Your task to perform on an android device: Go to privacy settings Image 0: 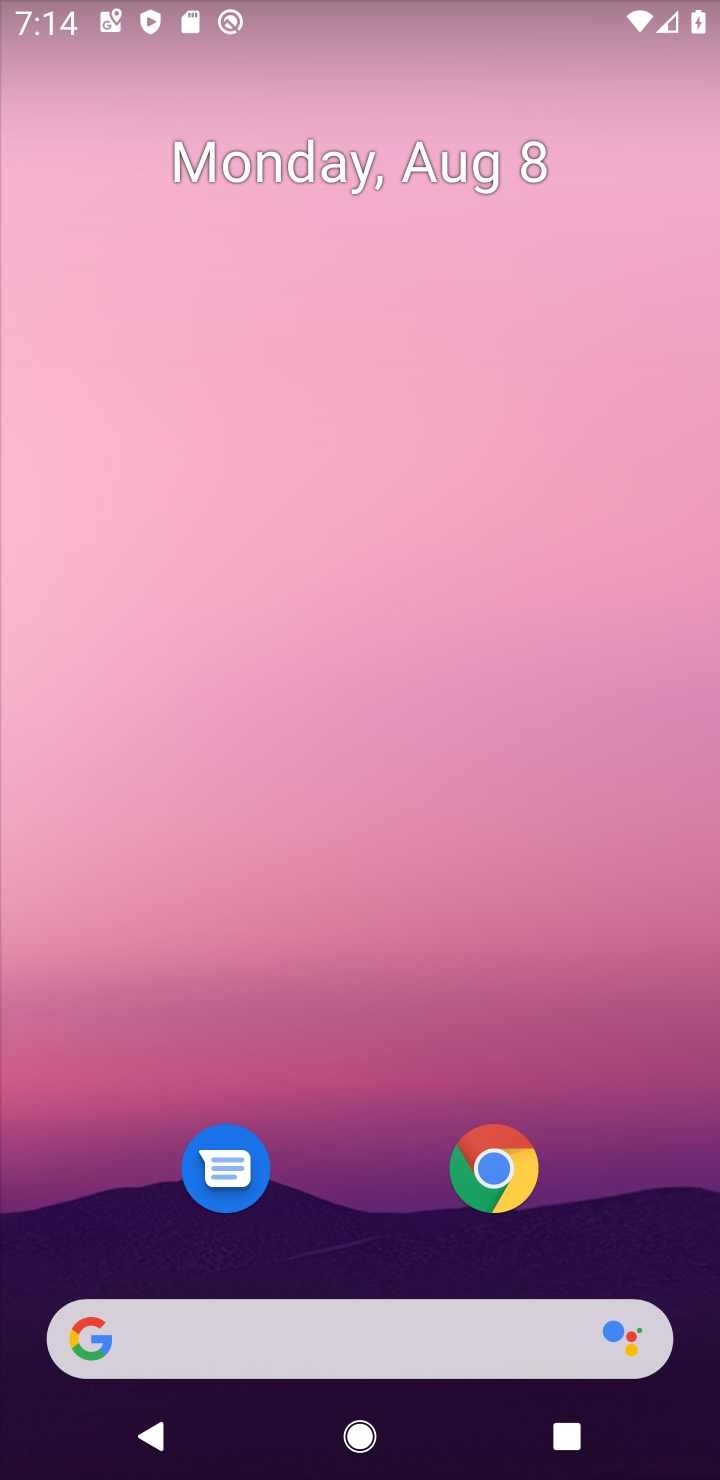
Step 0: drag from (654, 1213) to (517, 207)
Your task to perform on an android device: Go to privacy settings Image 1: 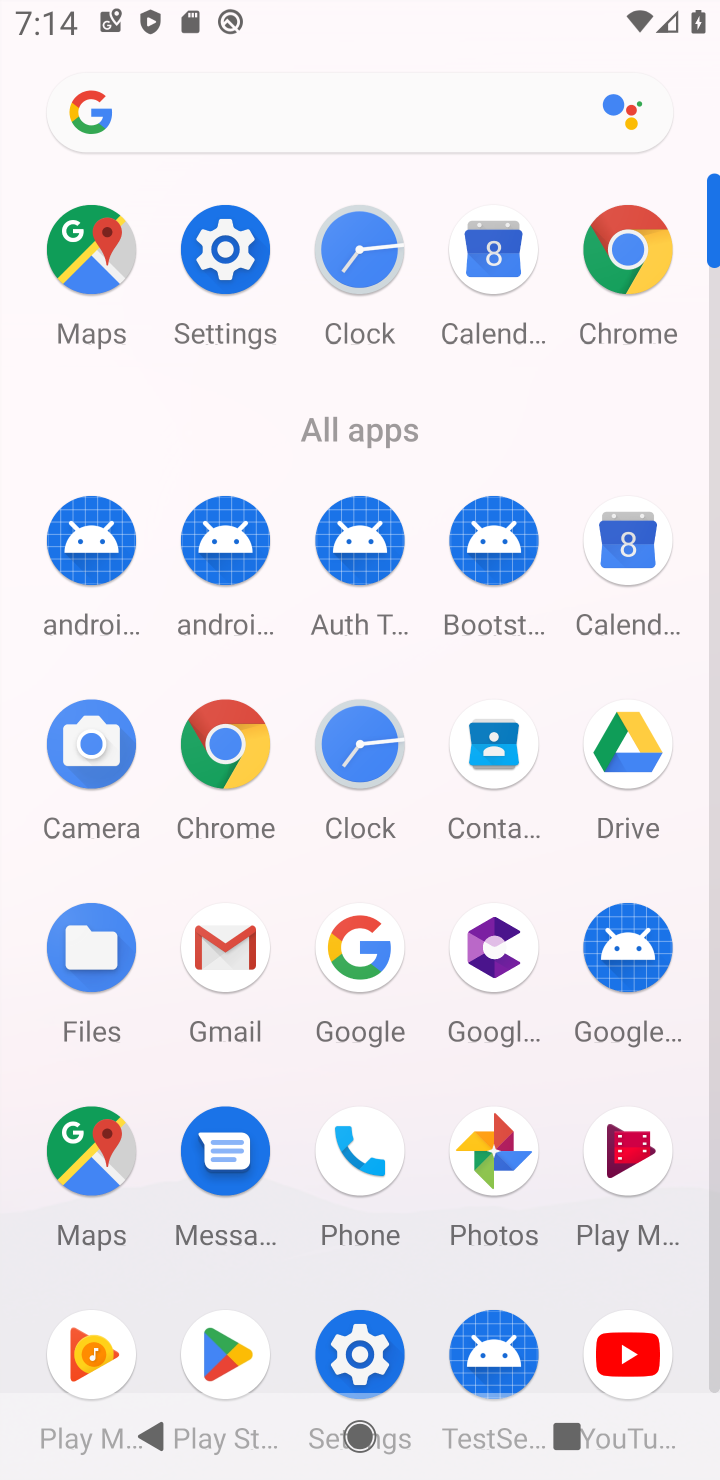
Step 1: click (366, 1331)
Your task to perform on an android device: Go to privacy settings Image 2: 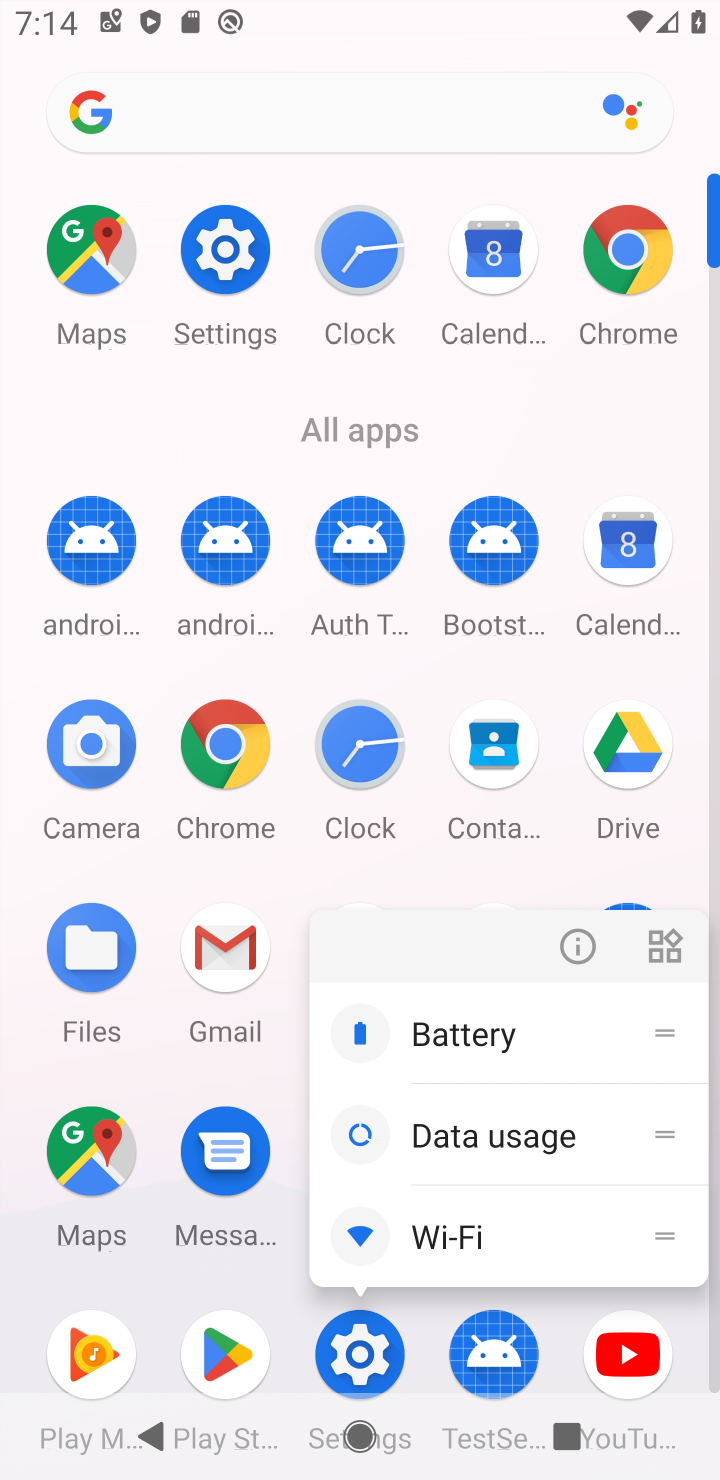
Step 2: click (366, 1331)
Your task to perform on an android device: Go to privacy settings Image 3: 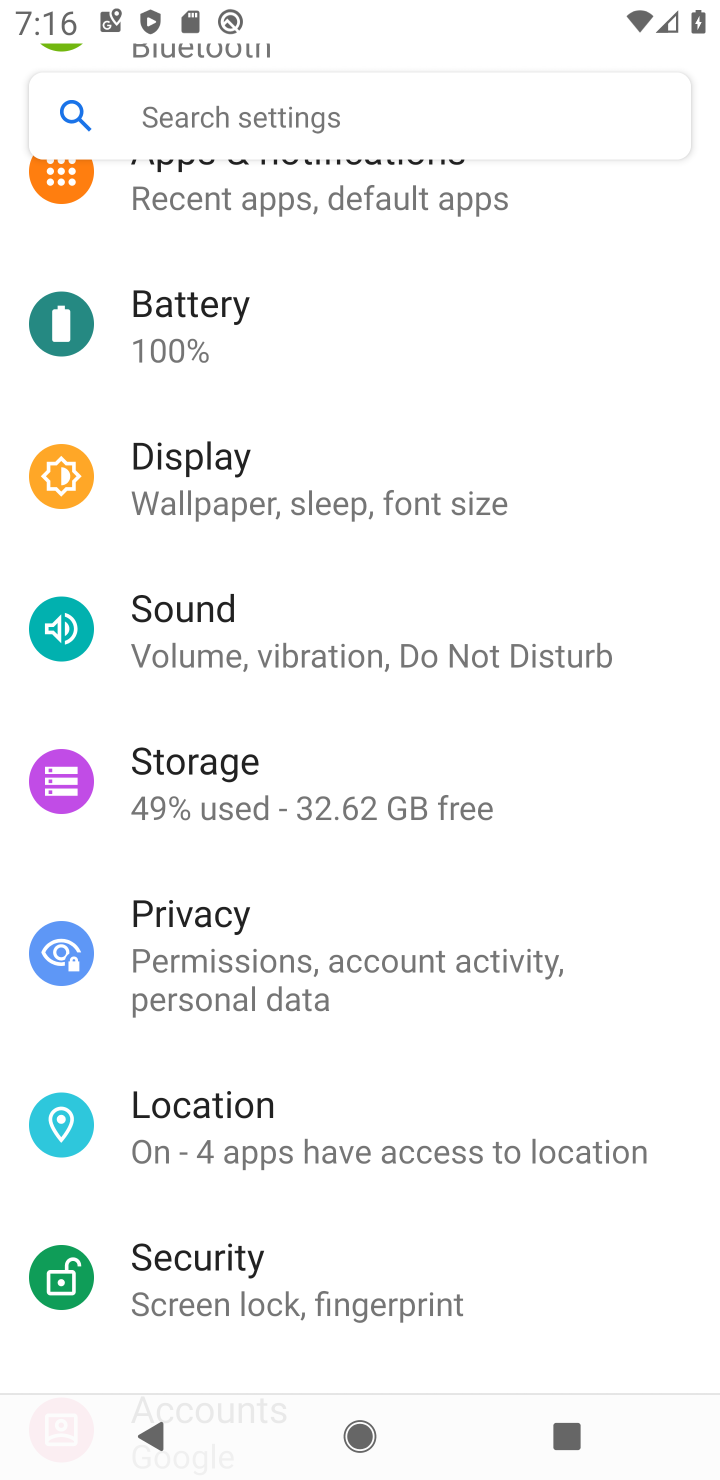
Step 3: click (204, 950)
Your task to perform on an android device: Go to privacy settings Image 4: 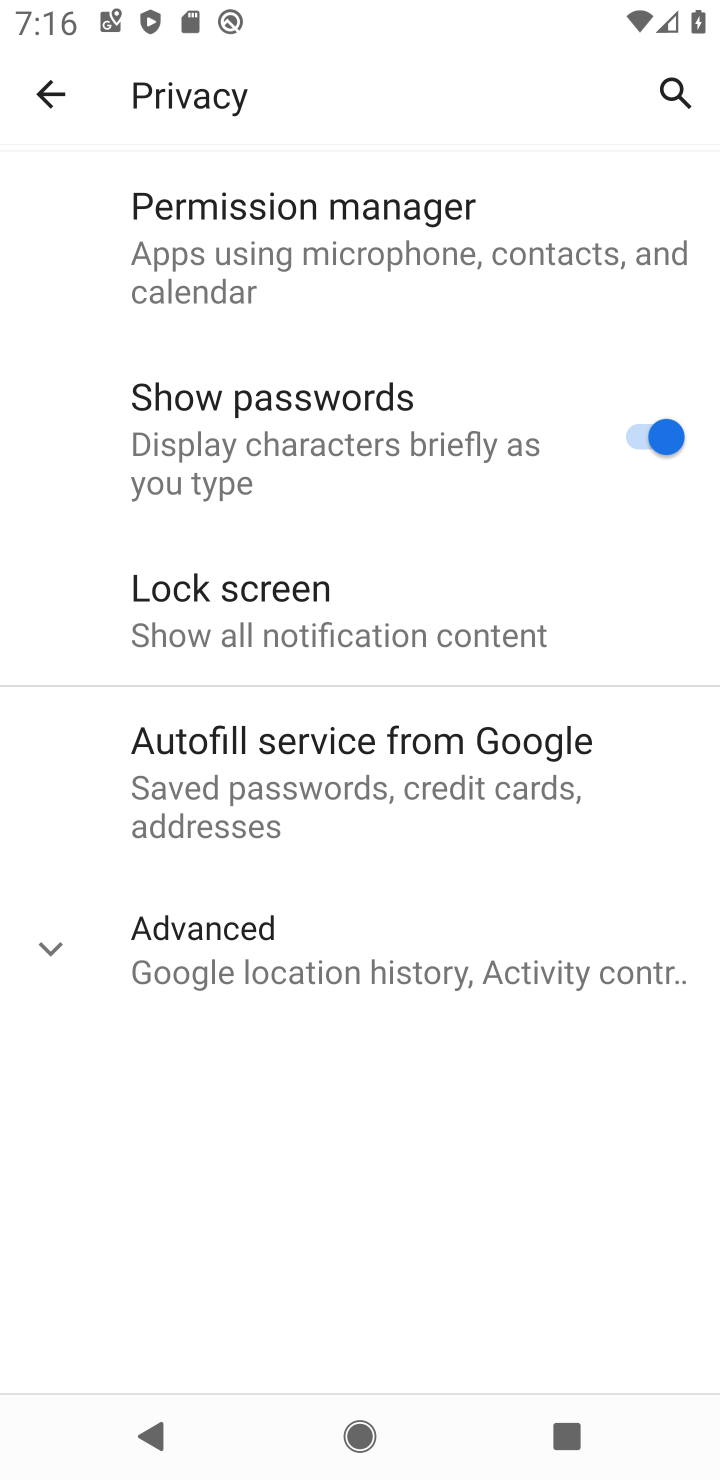
Step 4: task complete